Your task to perform on an android device: Open network settings Image 0: 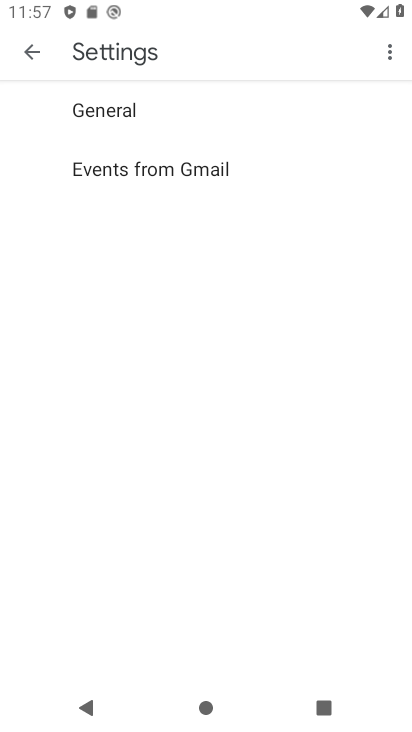
Step 0: press home button
Your task to perform on an android device: Open network settings Image 1: 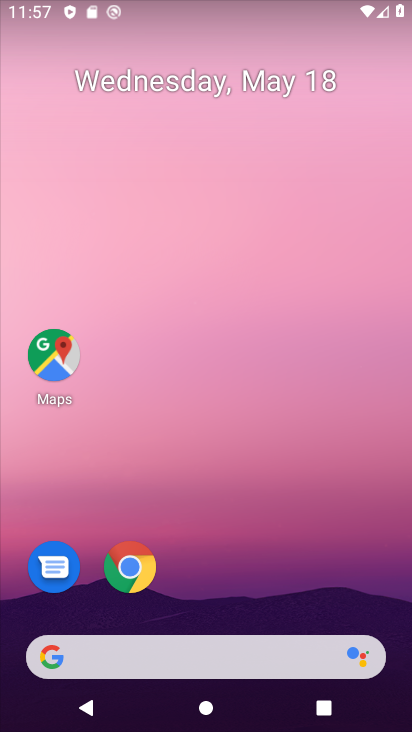
Step 1: drag from (225, 599) to (247, 200)
Your task to perform on an android device: Open network settings Image 2: 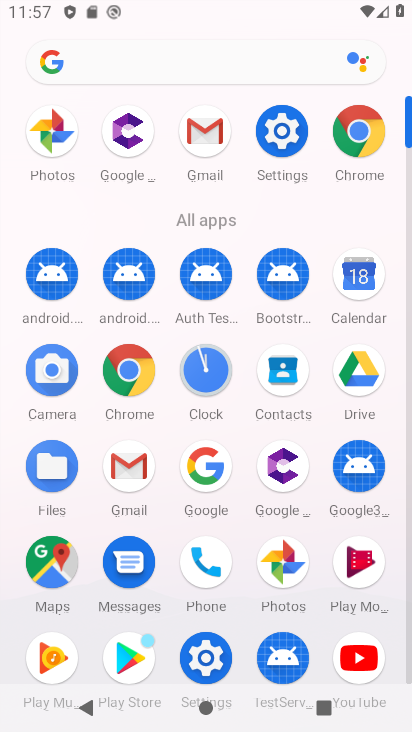
Step 2: click (280, 121)
Your task to perform on an android device: Open network settings Image 3: 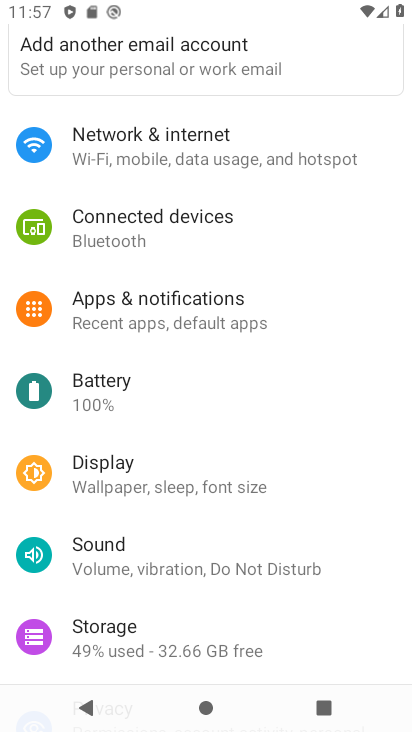
Step 3: click (170, 140)
Your task to perform on an android device: Open network settings Image 4: 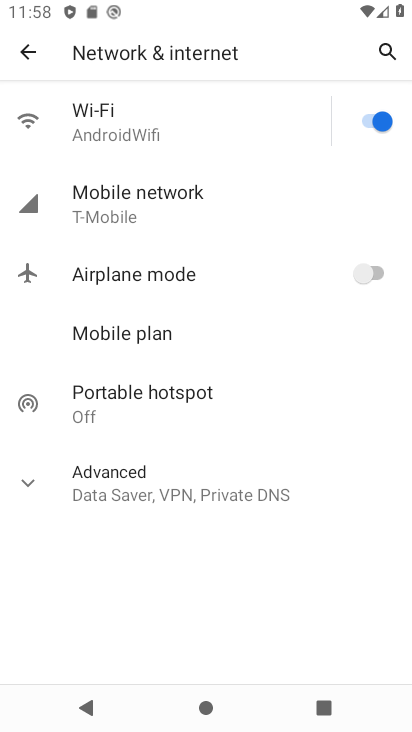
Step 4: task complete